Your task to perform on an android device: turn off priority inbox in the gmail app Image 0: 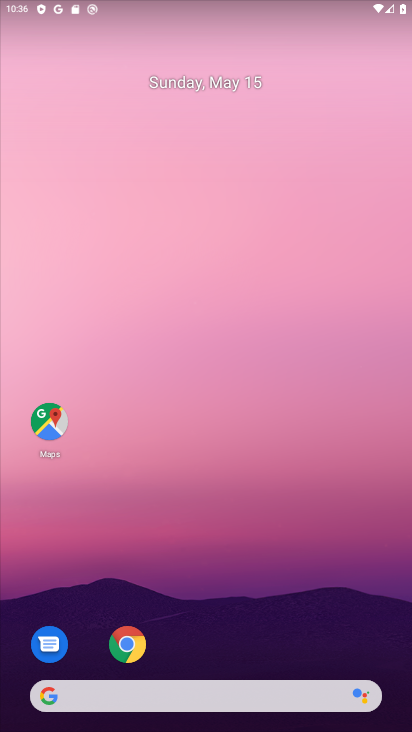
Step 0: drag from (252, 646) to (190, 46)
Your task to perform on an android device: turn off priority inbox in the gmail app Image 1: 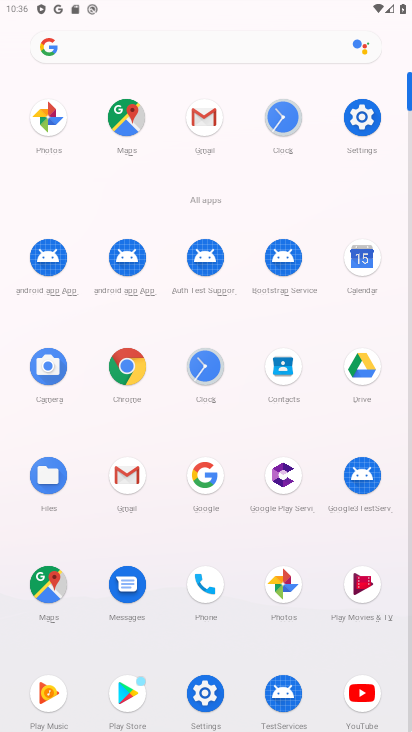
Step 1: click (211, 132)
Your task to perform on an android device: turn off priority inbox in the gmail app Image 2: 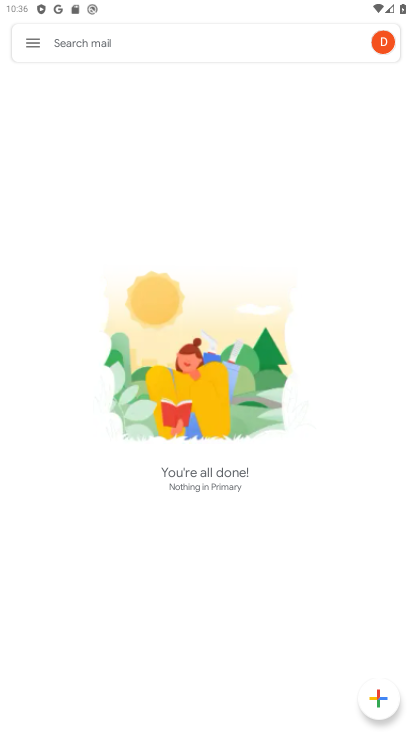
Step 2: click (38, 57)
Your task to perform on an android device: turn off priority inbox in the gmail app Image 3: 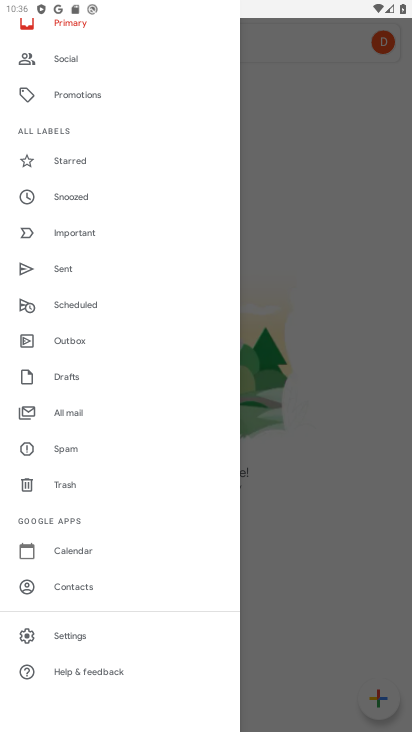
Step 3: click (152, 638)
Your task to perform on an android device: turn off priority inbox in the gmail app Image 4: 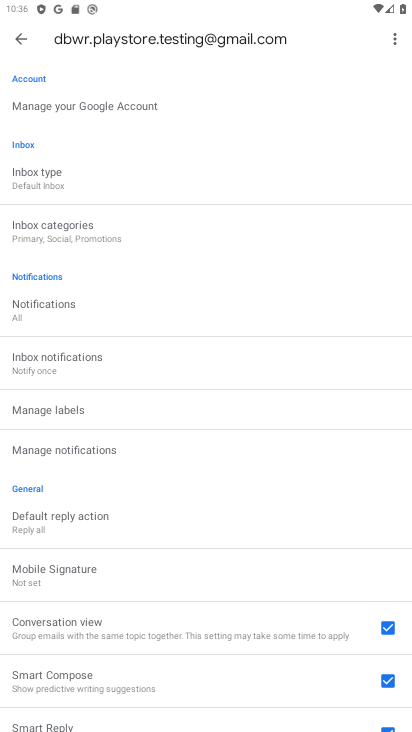
Step 4: click (81, 186)
Your task to perform on an android device: turn off priority inbox in the gmail app Image 5: 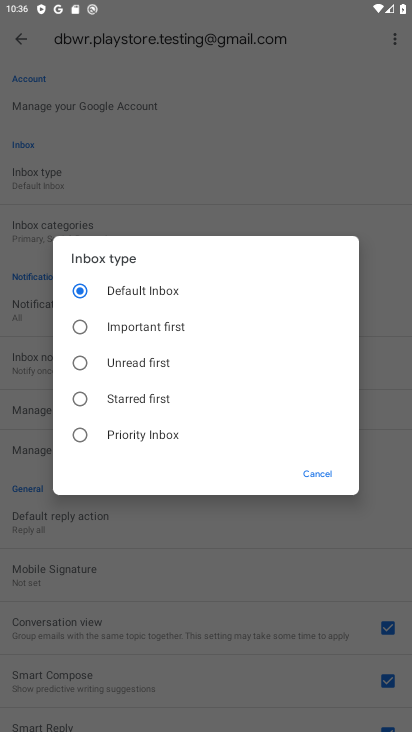
Step 5: task complete